Your task to perform on an android device: turn on sleep mode Image 0: 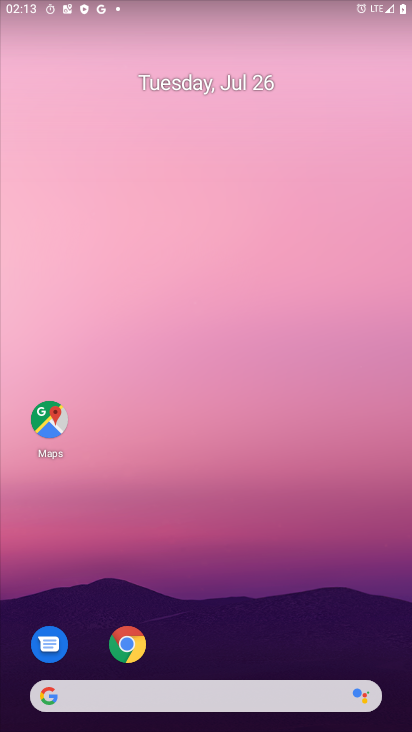
Step 0: drag from (260, 660) to (247, 26)
Your task to perform on an android device: turn on sleep mode Image 1: 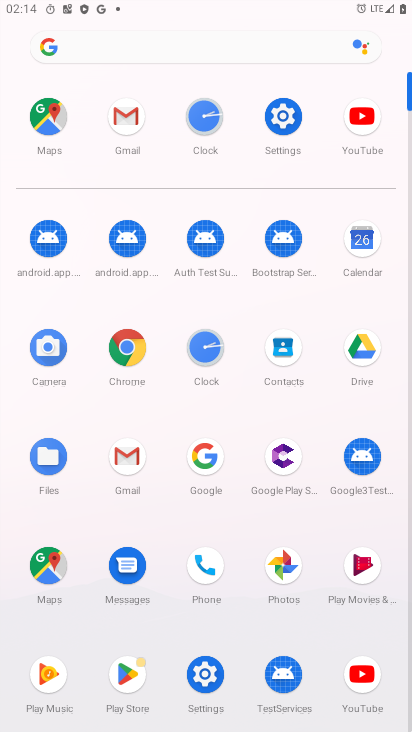
Step 1: click (280, 124)
Your task to perform on an android device: turn on sleep mode Image 2: 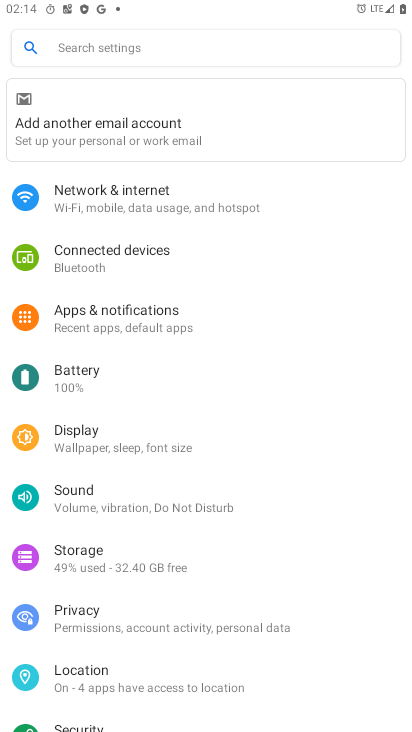
Step 2: click (83, 438)
Your task to perform on an android device: turn on sleep mode Image 3: 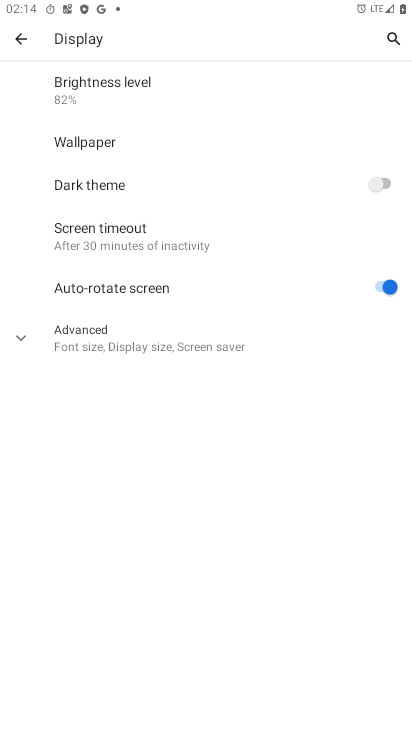
Step 3: click (21, 342)
Your task to perform on an android device: turn on sleep mode Image 4: 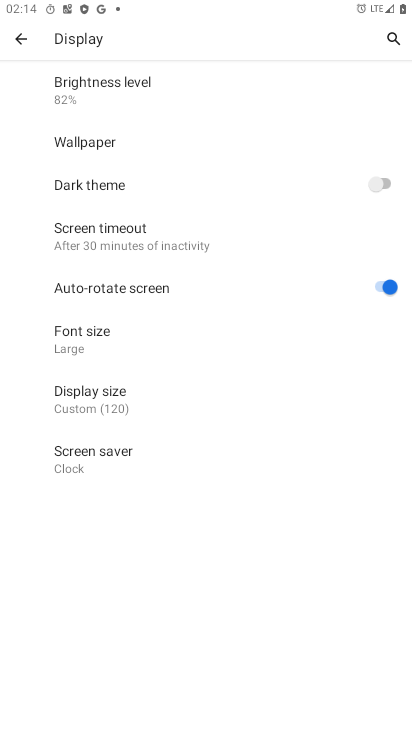
Step 4: task complete